Your task to perform on an android device: Search for the best rated vacuums on Target Image 0: 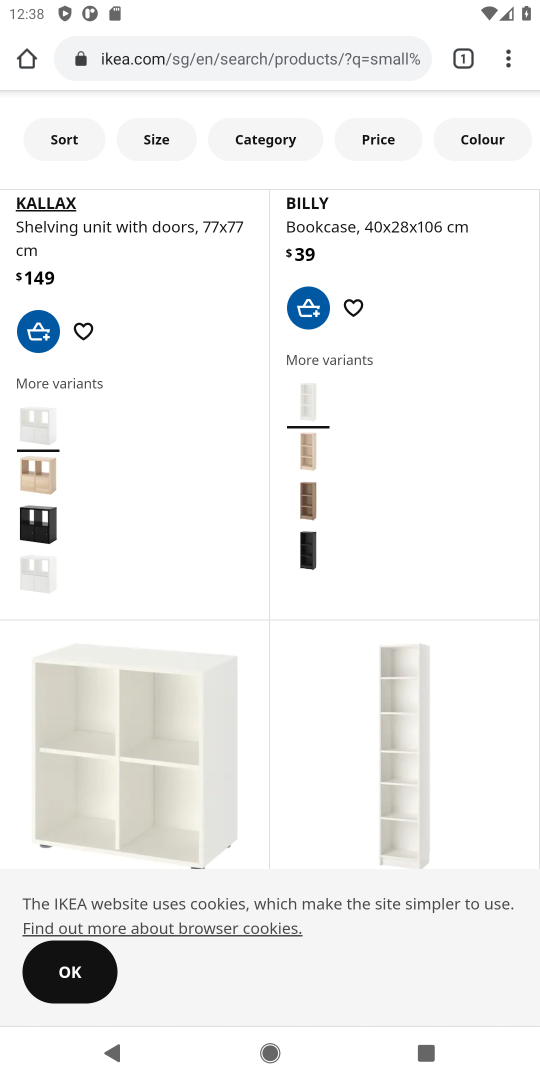
Step 0: click (360, 52)
Your task to perform on an android device: Search for the best rated vacuums on Target Image 1: 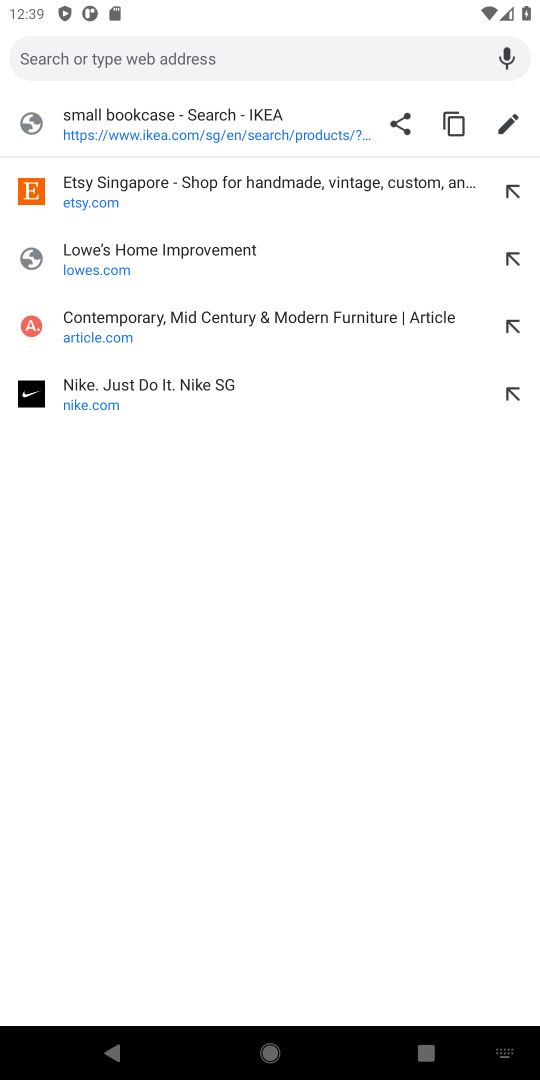
Step 1: type "Target"
Your task to perform on an android device: Search for the best rated vacuums on Target Image 2: 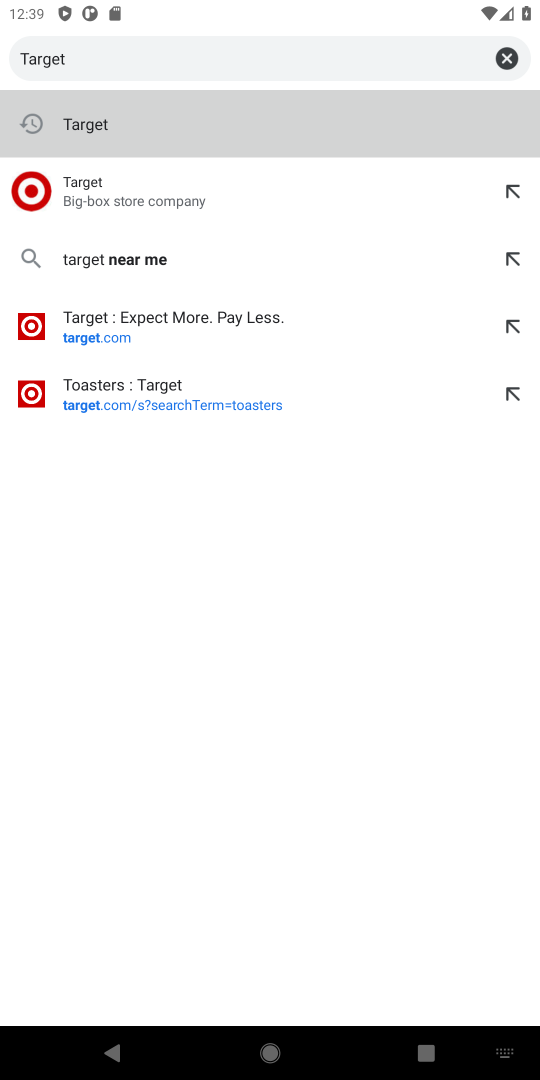
Step 2: press enter
Your task to perform on an android device: Search for the best rated vacuums on Target Image 3: 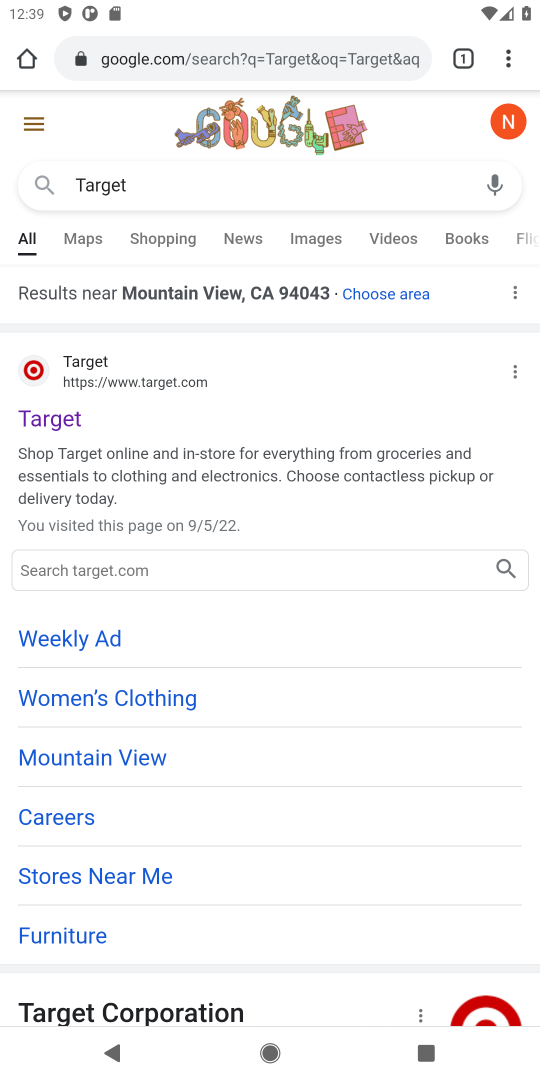
Step 3: click (69, 422)
Your task to perform on an android device: Search for the best rated vacuums on Target Image 4: 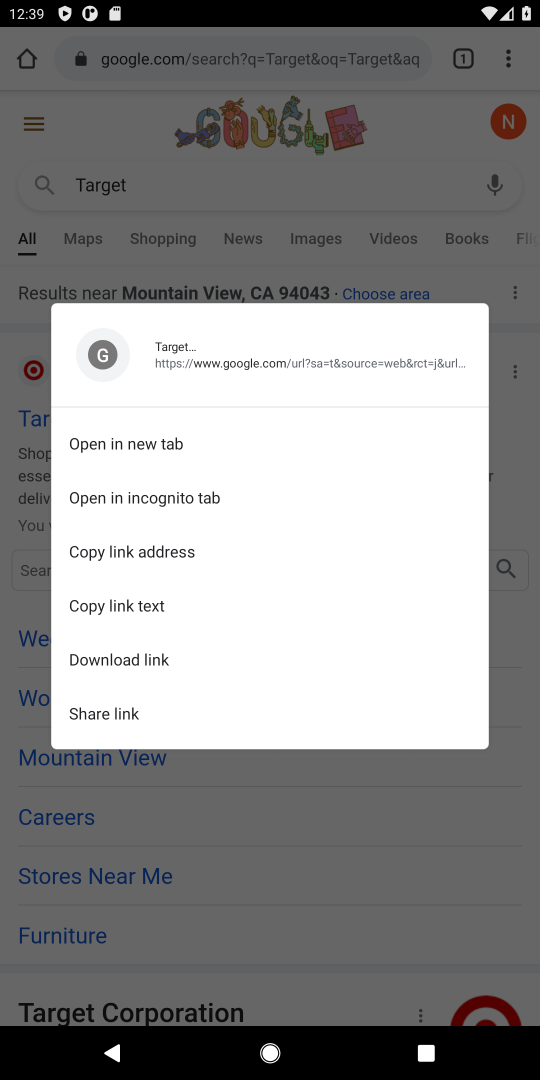
Step 4: click (9, 427)
Your task to perform on an android device: Search for the best rated vacuums on Target Image 5: 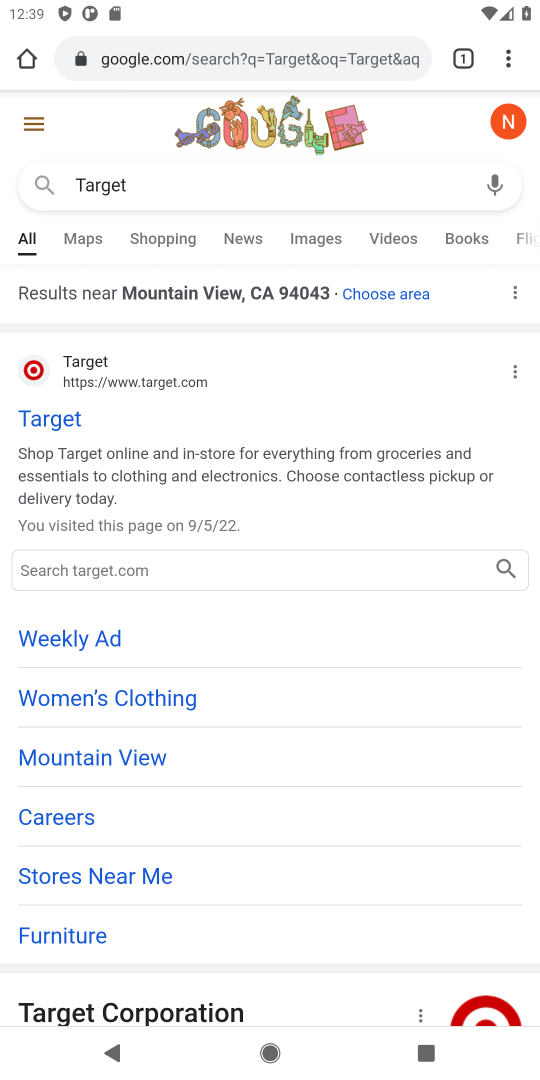
Step 5: click (44, 412)
Your task to perform on an android device: Search for the best rated vacuums on Target Image 6: 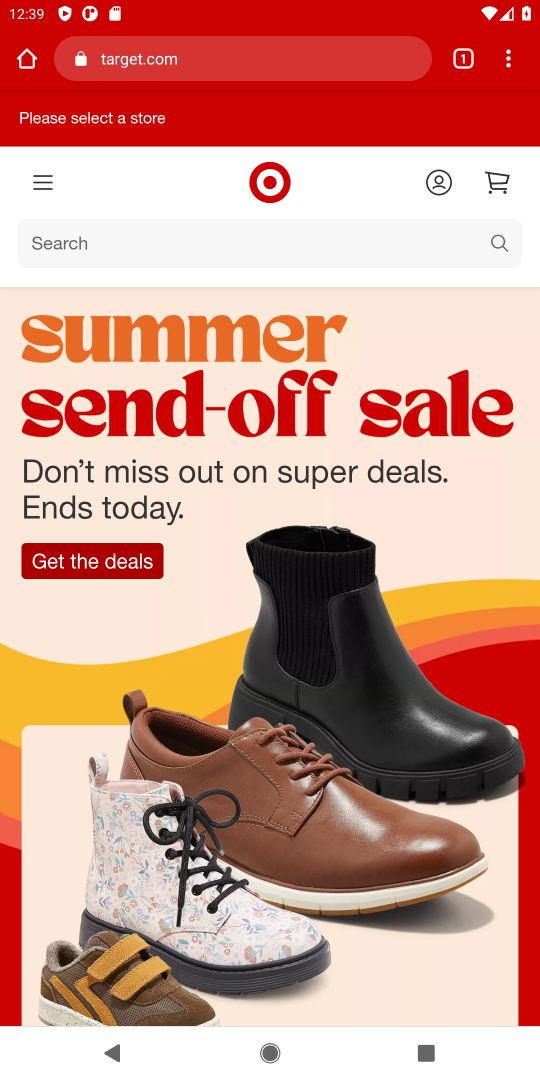
Step 6: click (115, 236)
Your task to perform on an android device: Search for the best rated vacuums on Target Image 7: 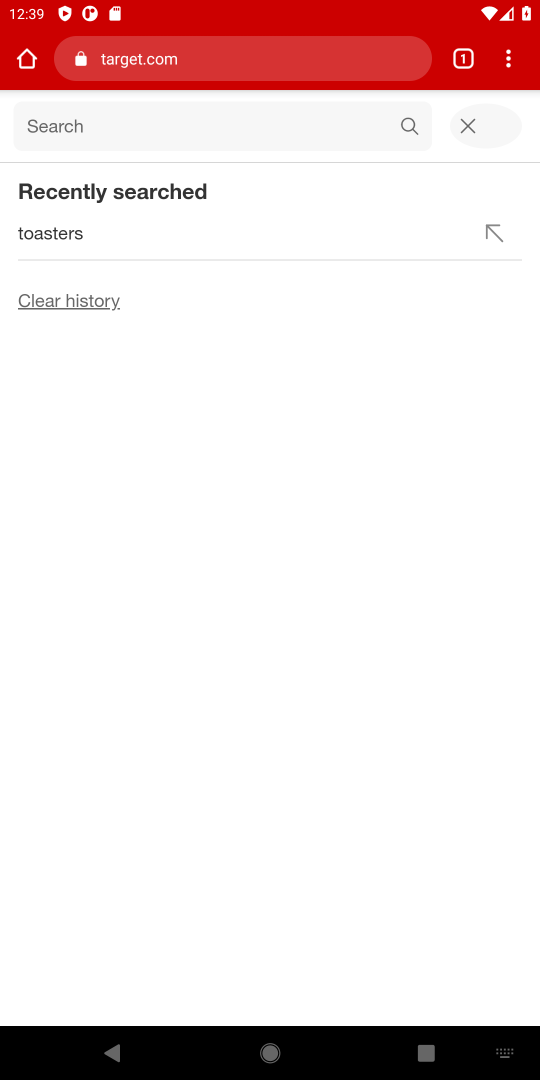
Step 7: type "vacuums "
Your task to perform on an android device: Search for the best rated vacuums on Target Image 8: 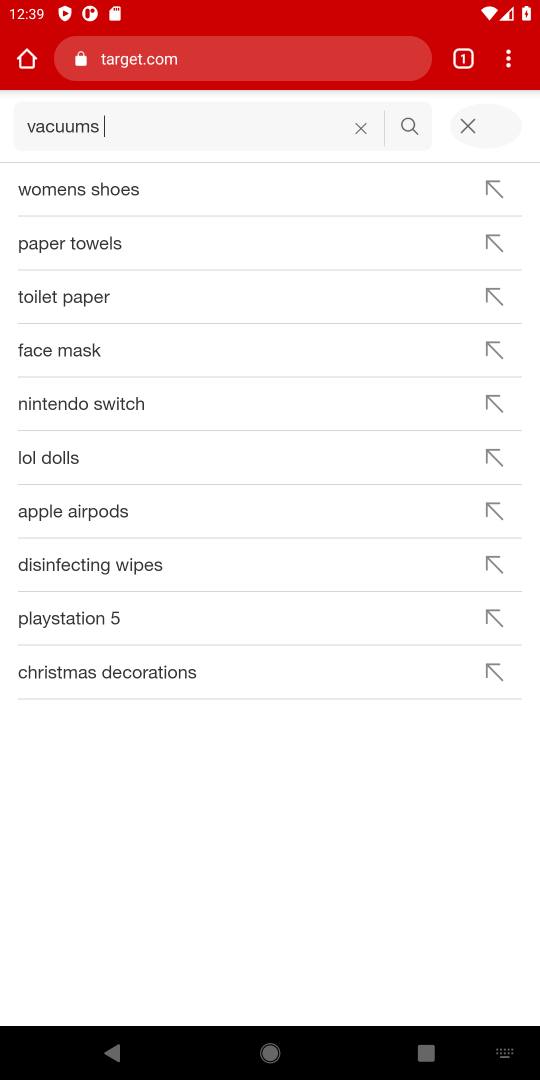
Step 8: press enter
Your task to perform on an android device: Search for the best rated vacuums on Target Image 9: 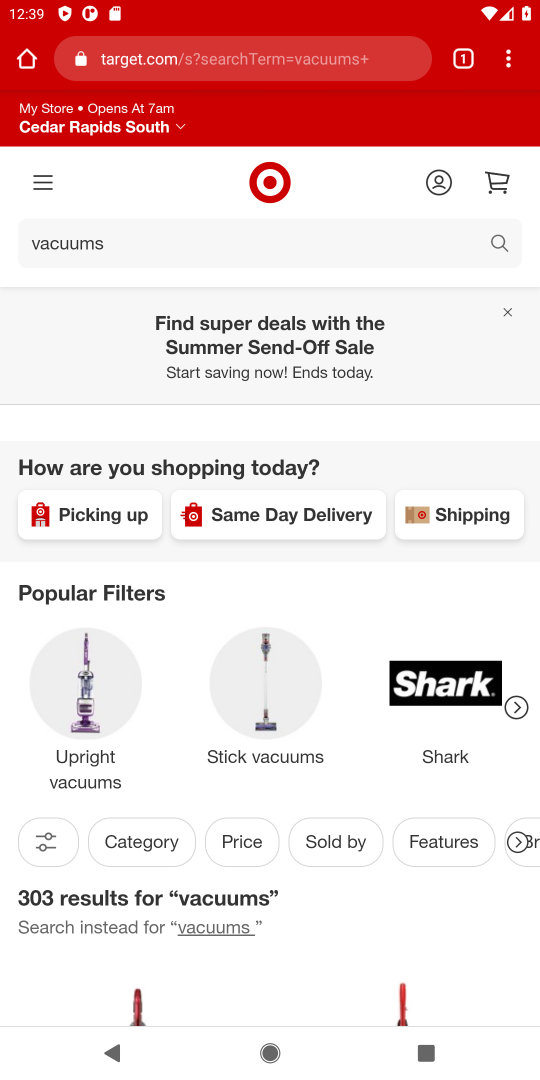
Step 9: task complete